Your task to perform on an android device: delete browsing data in the chrome app Image 0: 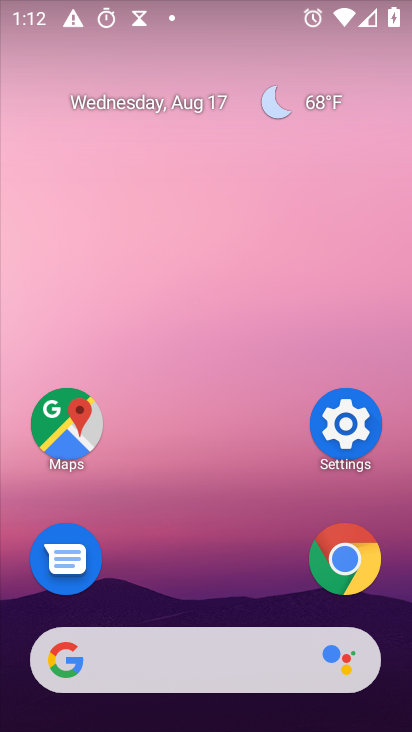
Step 0: click (345, 574)
Your task to perform on an android device: delete browsing data in the chrome app Image 1: 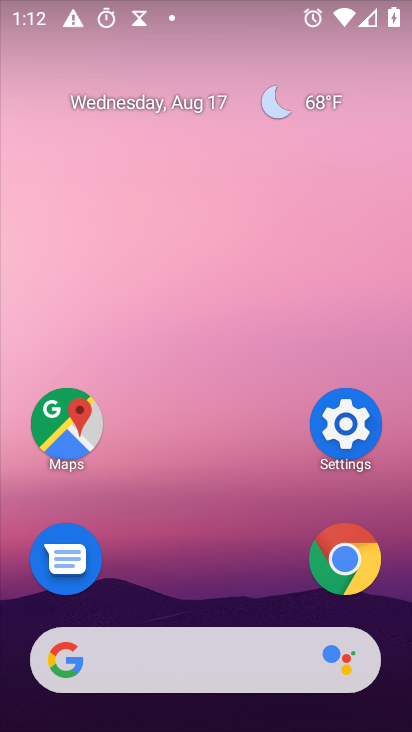
Step 1: click (349, 547)
Your task to perform on an android device: delete browsing data in the chrome app Image 2: 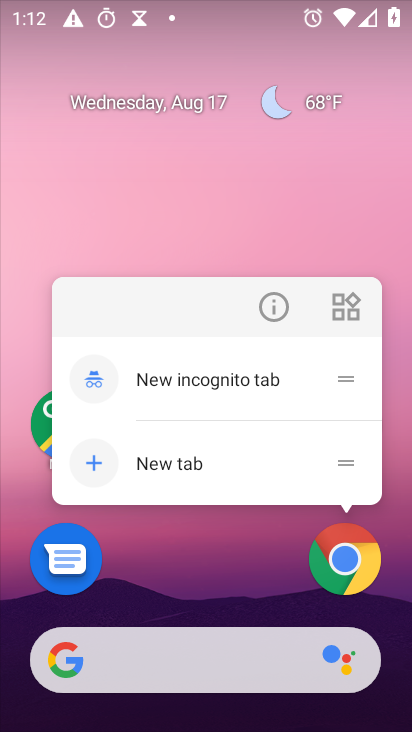
Step 2: click (348, 547)
Your task to perform on an android device: delete browsing data in the chrome app Image 3: 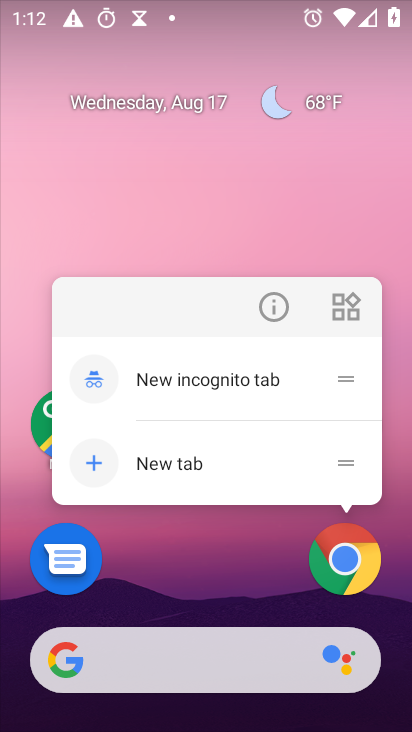
Step 3: click (348, 548)
Your task to perform on an android device: delete browsing data in the chrome app Image 4: 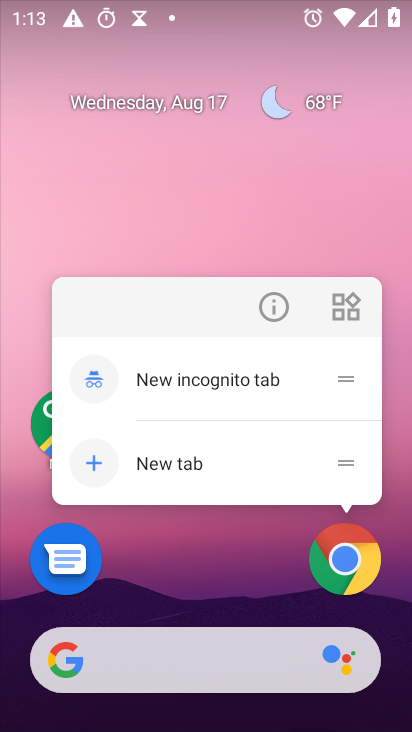
Step 4: click (348, 553)
Your task to perform on an android device: delete browsing data in the chrome app Image 5: 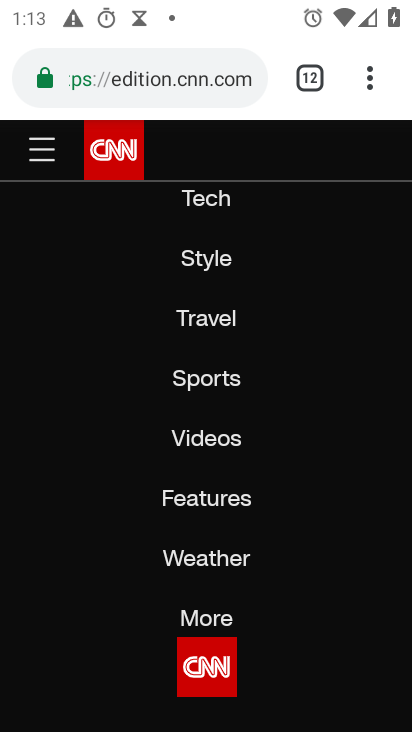
Step 5: drag from (369, 80) to (167, 624)
Your task to perform on an android device: delete browsing data in the chrome app Image 6: 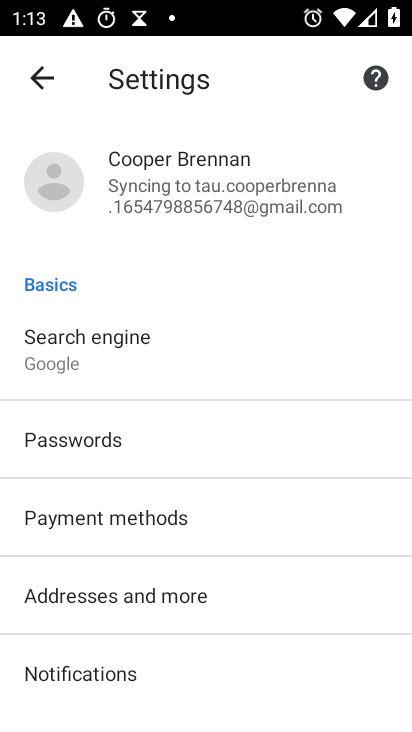
Step 6: drag from (178, 637) to (315, 221)
Your task to perform on an android device: delete browsing data in the chrome app Image 7: 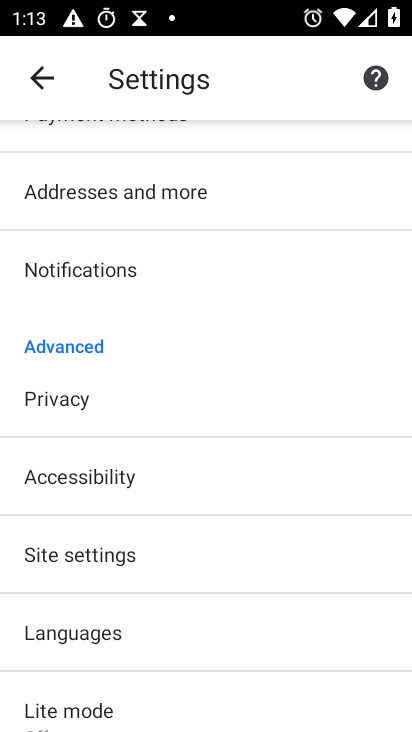
Step 7: click (80, 403)
Your task to perform on an android device: delete browsing data in the chrome app Image 8: 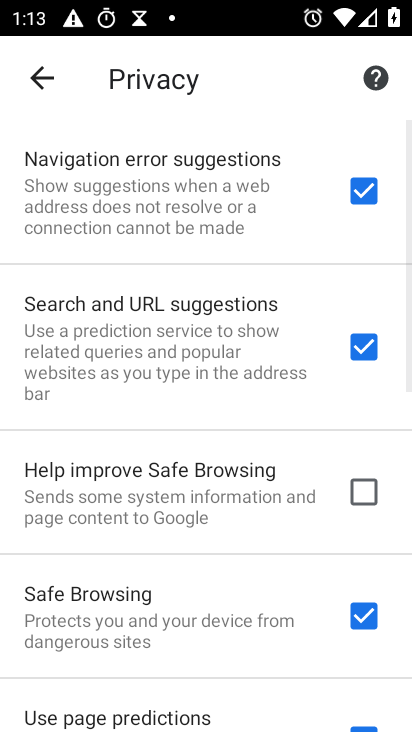
Step 8: drag from (180, 672) to (289, 69)
Your task to perform on an android device: delete browsing data in the chrome app Image 9: 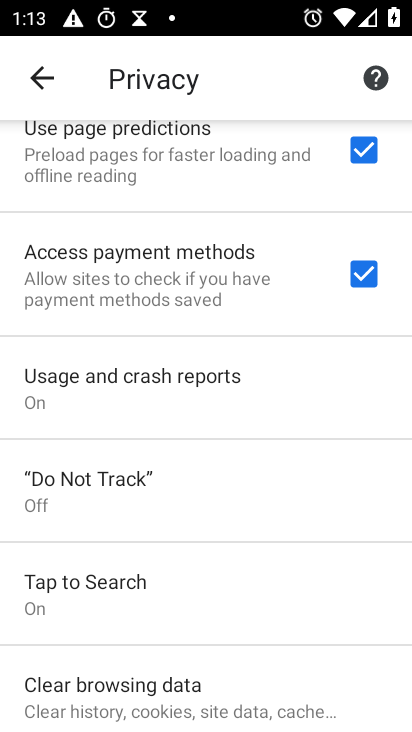
Step 9: drag from (213, 626) to (255, 97)
Your task to perform on an android device: delete browsing data in the chrome app Image 10: 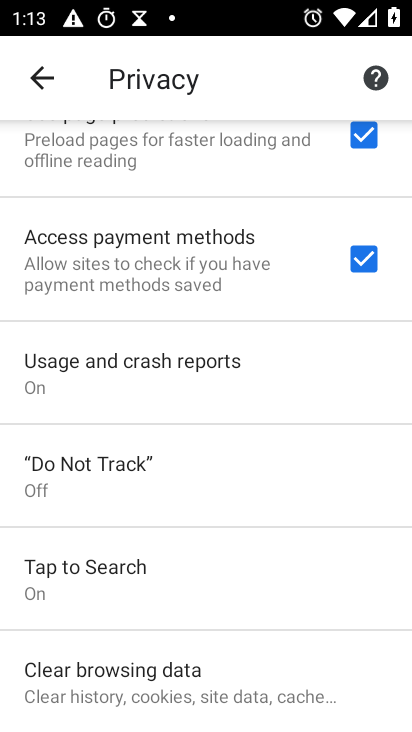
Step 10: click (147, 696)
Your task to perform on an android device: delete browsing data in the chrome app Image 11: 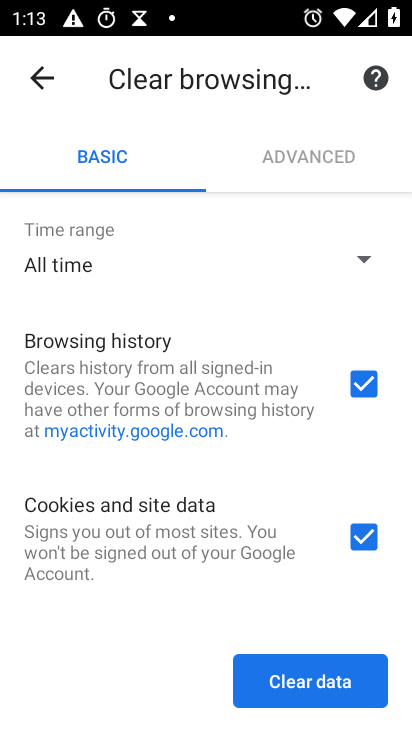
Step 11: click (312, 684)
Your task to perform on an android device: delete browsing data in the chrome app Image 12: 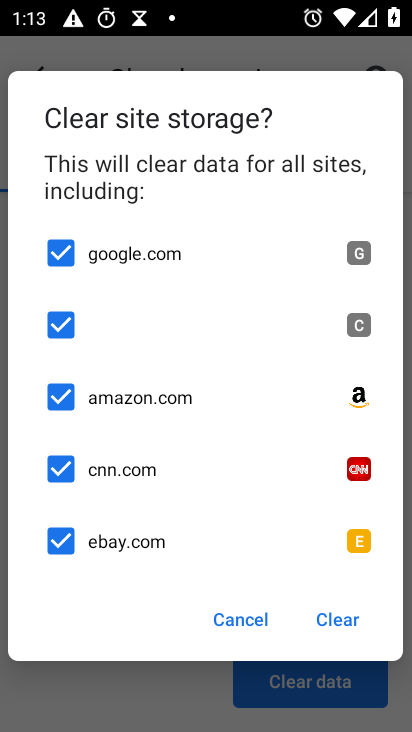
Step 12: click (339, 619)
Your task to perform on an android device: delete browsing data in the chrome app Image 13: 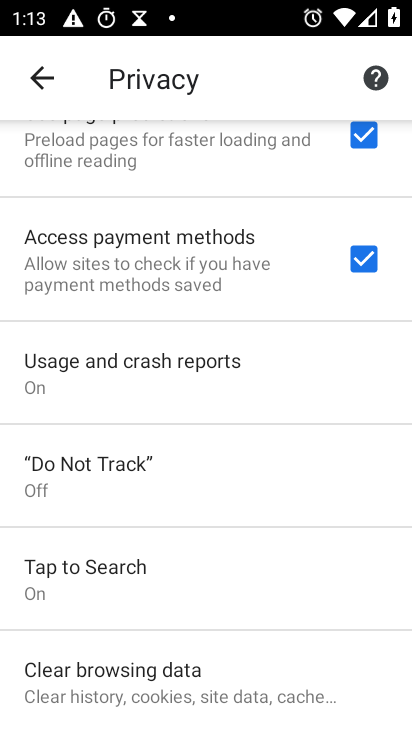
Step 13: task complete